Your task to perform on an android device: see sites visited before in the chrome app Image 0: 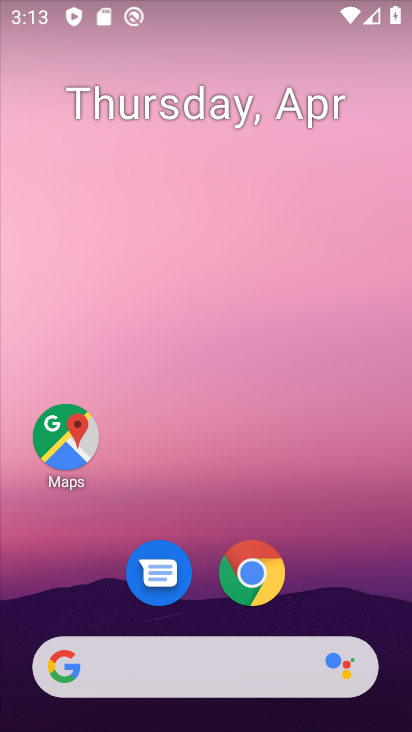
Step 0: drag from (318, 376) to (286, 146)
Your task to perform on an android device: see sites visited before in the chrome app Image 1: 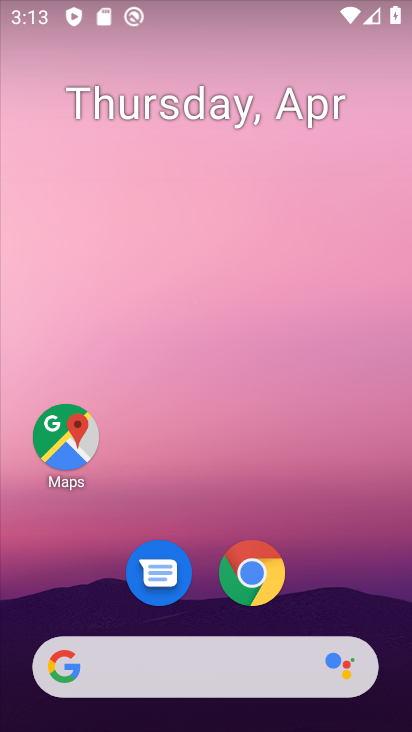
Step 1: drag from (341, 599) to (196, 8)
Your task to perform on an android device: see sites visited before in the chrome app Image 2: 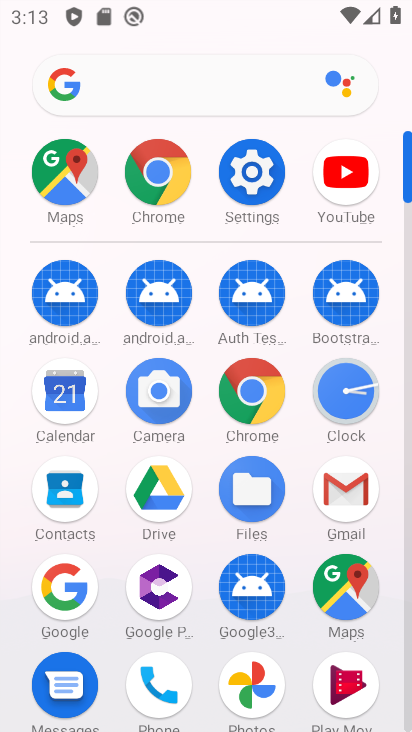
Step 2: click (162, 201)
Your task to perform on an android device: see sites visited before in the chrome app Image 3: 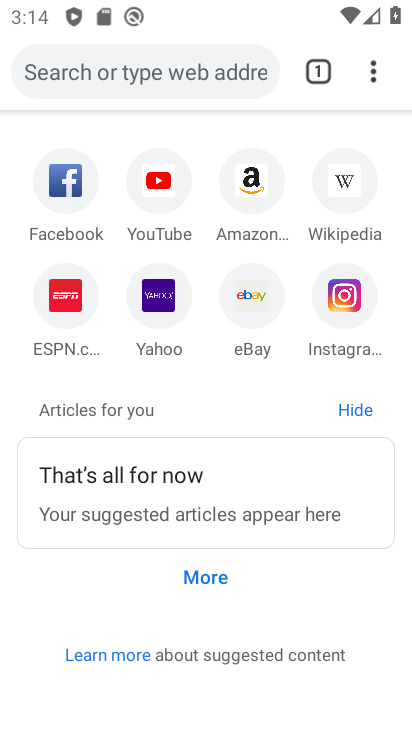
Step 3: click (367, 72)
Your task to perform on an android device: see sites visited before in the chrome app Image 4: 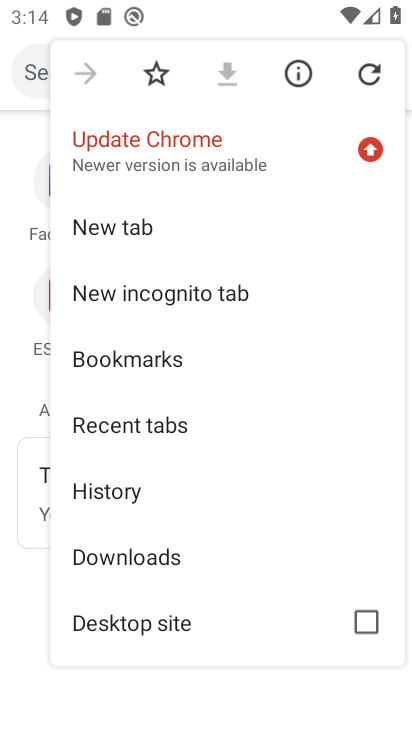
Step 4: click (111, 497)
Your task to perform on an android device: see sites visited before in the chrome app Image 5: 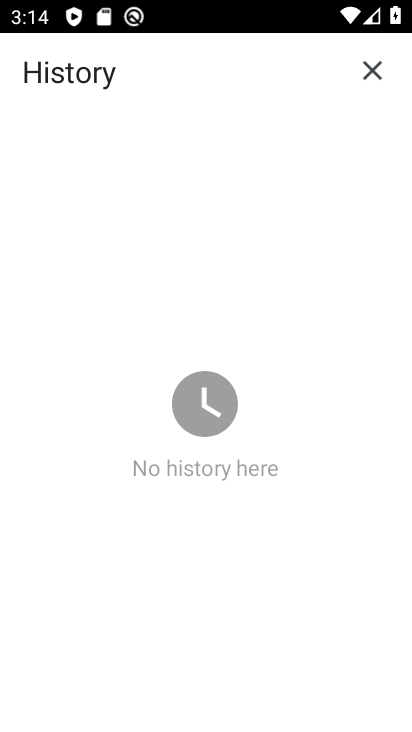
Step 5: task complete